Your task to perform on an android device: Check the news Image 0: 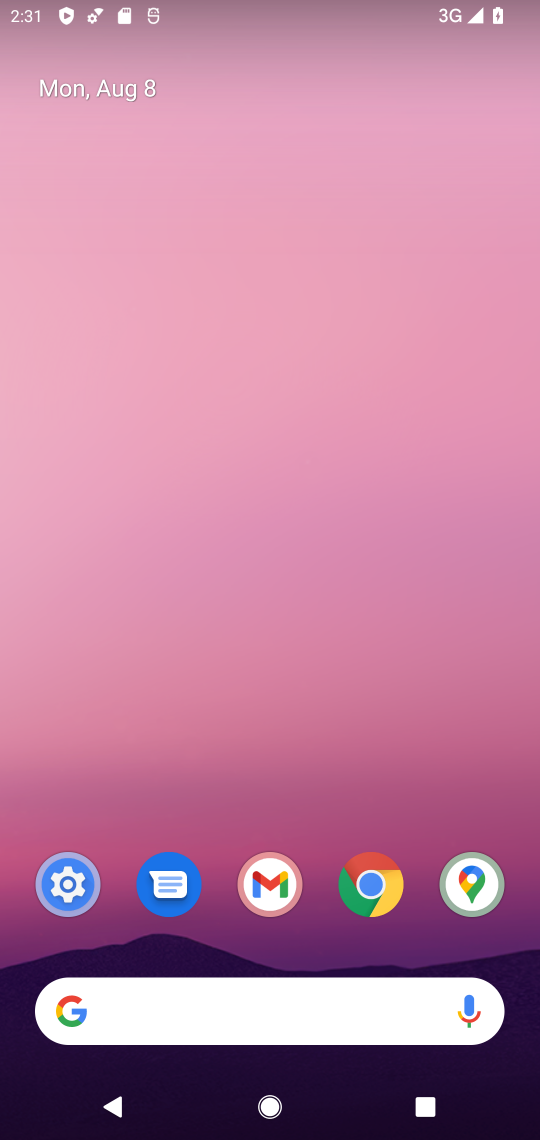
Step 0: click (234, 998)
Your task to perform on an android device: Check the news Image 1: 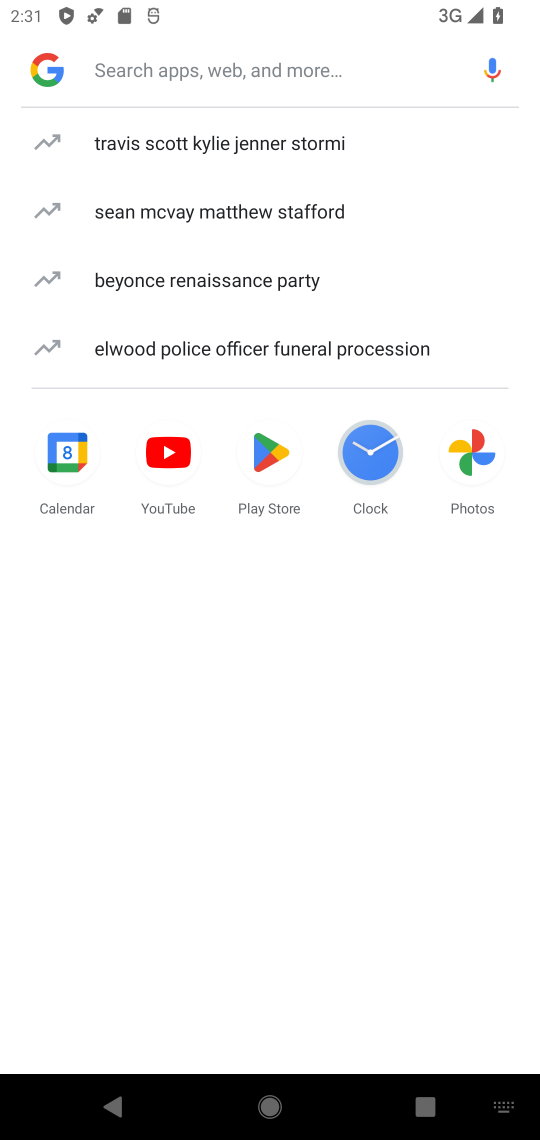
Step 1: type "news"
Your task to perform on an android device: Check the news Image 2: 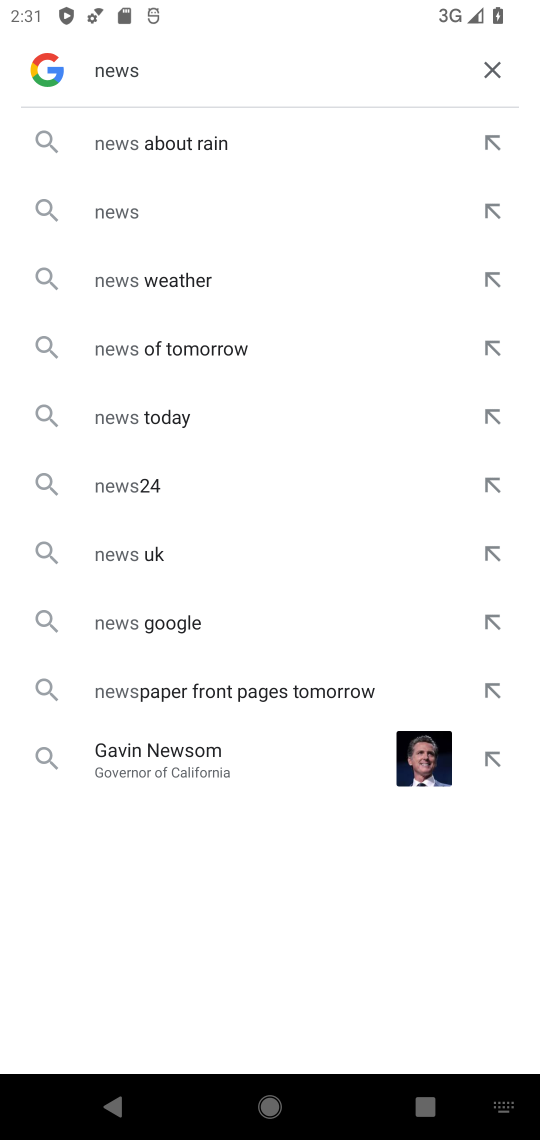
Step 2: click (122, 208)
Your task to perform on an android device: Check the news Image 3: 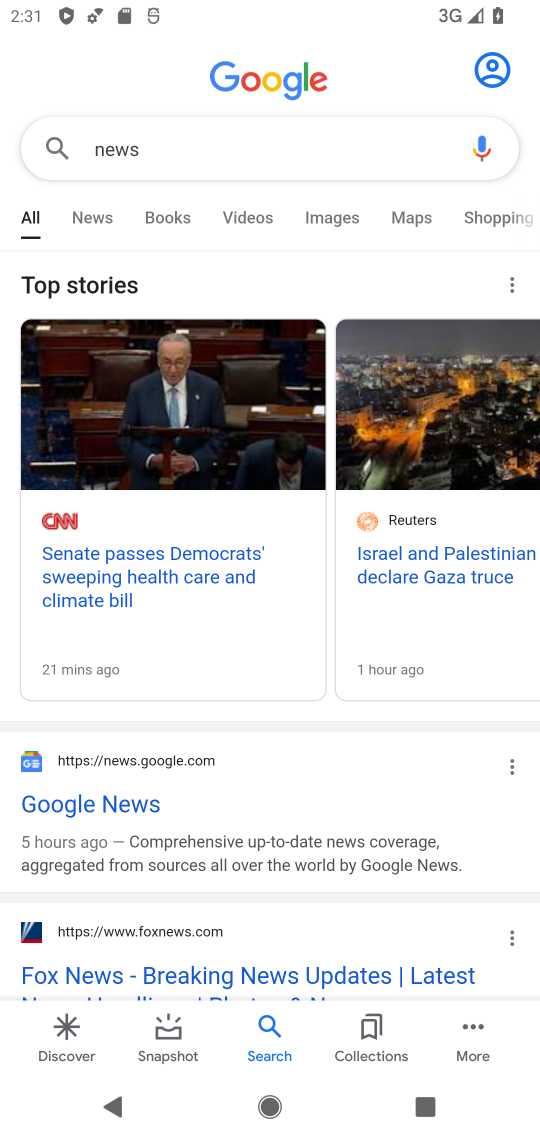
Step 3: click (99, 794)
Your task to perform on an android device: Check the news Image 4: 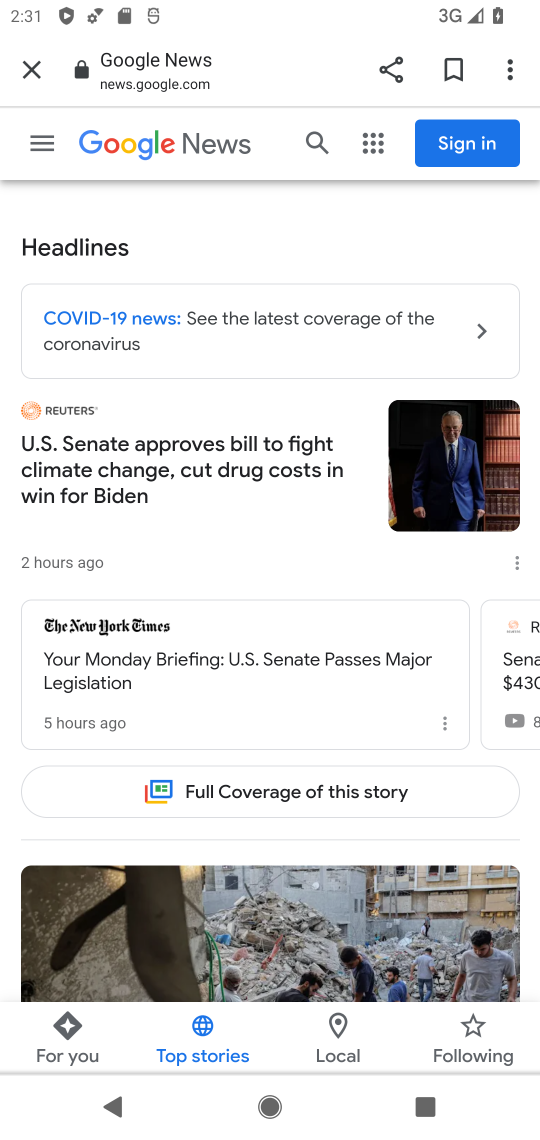
Step 4: task complete